Your task to perform on an android device: Open the phone app and click the voicemail tab. Image 0: 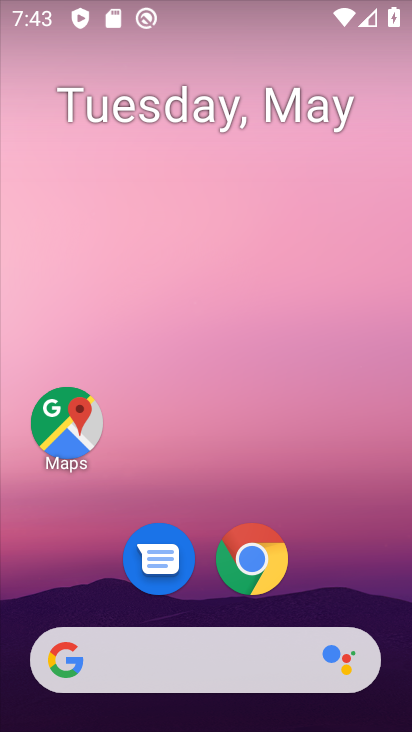
Step 0: drag from (369, 602) to (358, 120)
Your task to perform on an android device: Open the phone app and click the voicemail tab. Image 1: 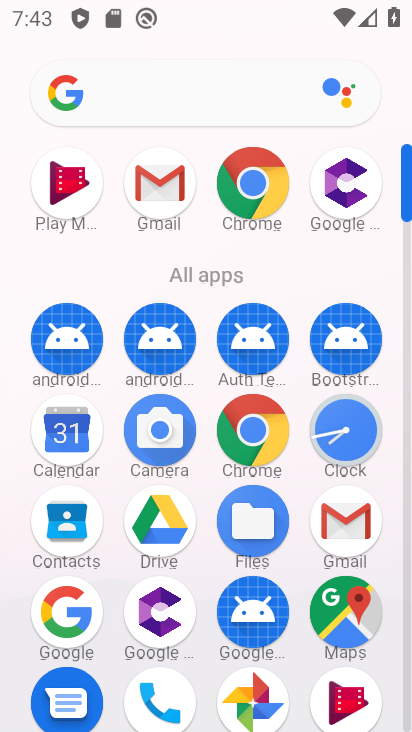
Step 1: drag from (395, 513) to (411, 226)
Your task to perform on an android device: Open the phone app and click the voicemail tab. Image 2: 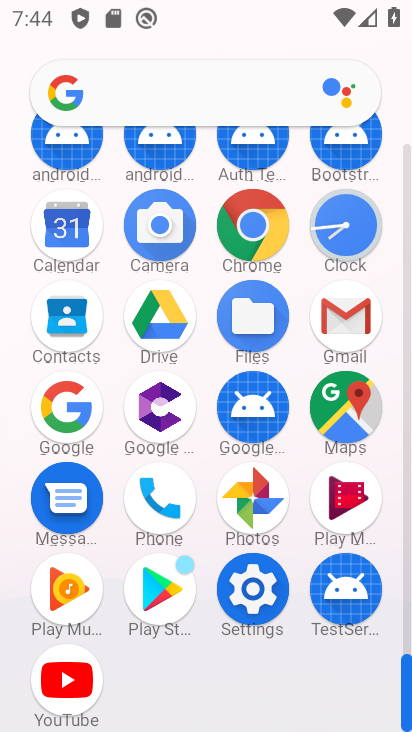
Step 2: click (152, 513)
Your task to perform on an android device: Open the phone app and click the voicemail tab. Image 3: 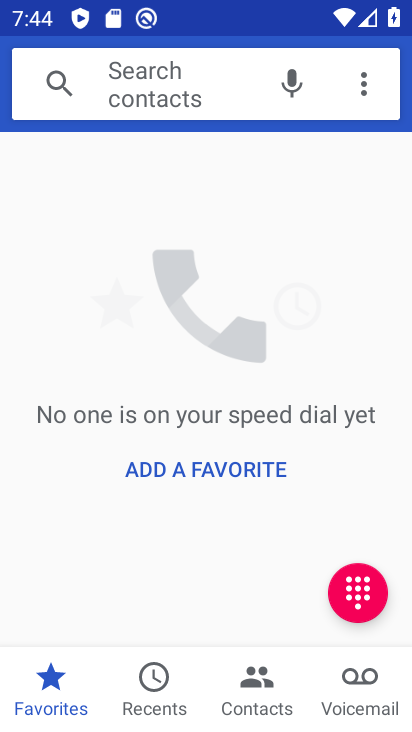
Step 3: click (358, 675)
Your task to perform on an android device: Open the phone app and click the voicemail tab. Image 4: 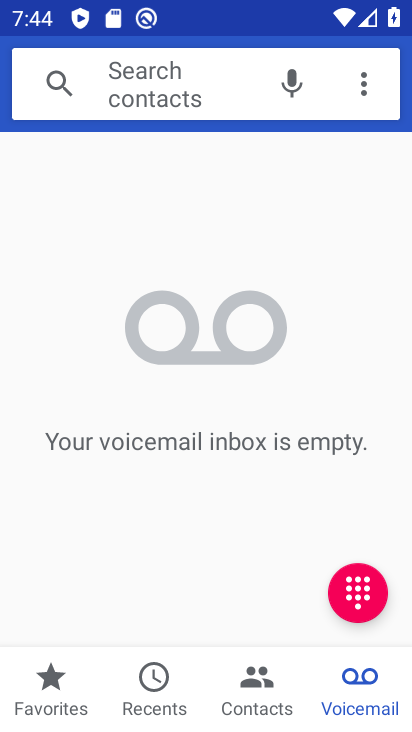
Step 4: task complete